Your task to perform on an android device: Go to Google Image 0: 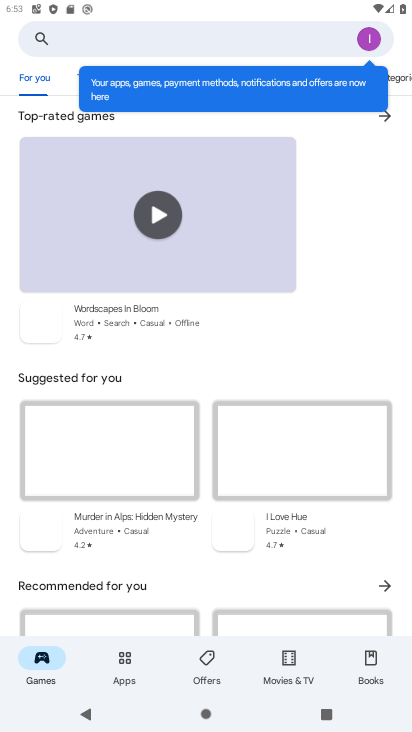
Step 0: press home button
Your task to perform on an android device: Go to Google Image 1: 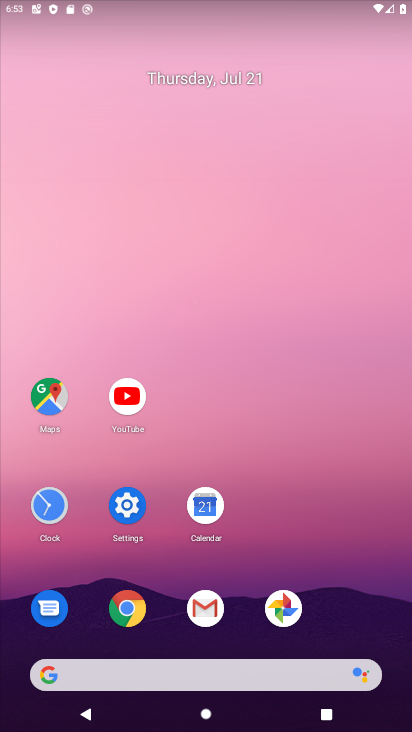
Step 1: click (44, 679)
Your task to perform on an android device: Go to Google Image 2: 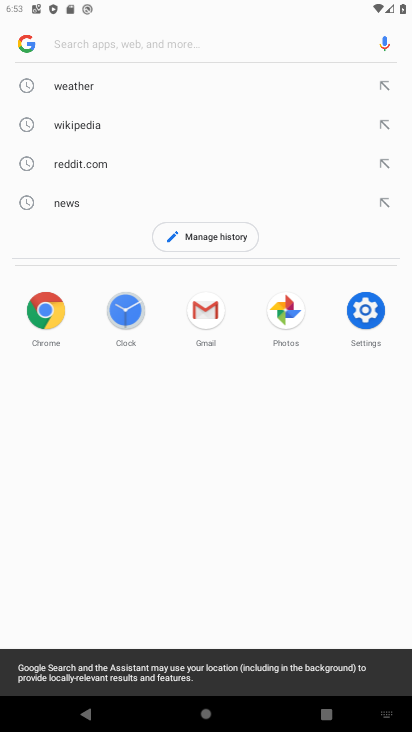
Step 2: click (31, 41)
Your task to perform on an android device: Go to Google Image 3: 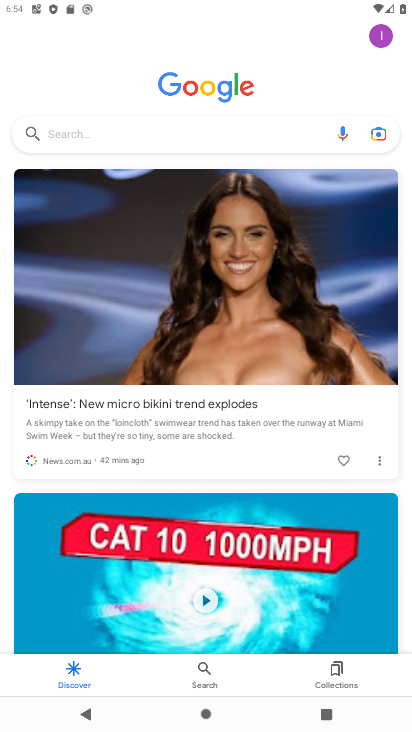
Step 3: task complete